Your task to perform on an android device: turn off improve location accuracy Image 0: 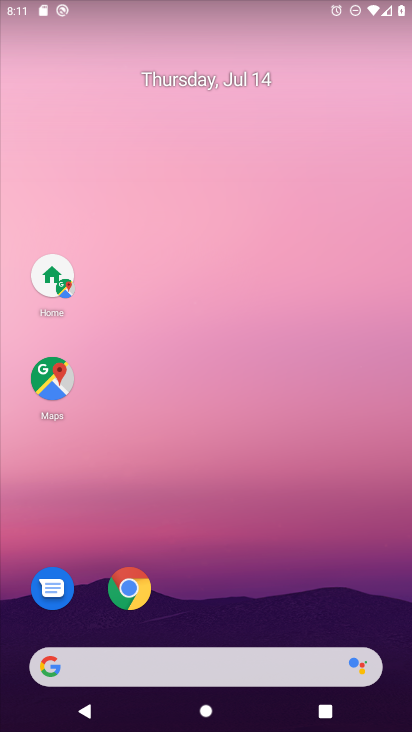
Step 0: click (35, 386)
Your task to perform on an android device: turn off improve location accuracy Image 1: 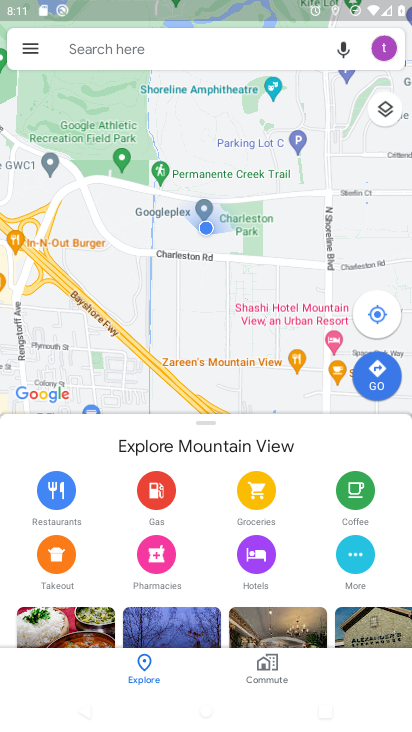
Step 1: click (36, 53)
Your task to perform on an android device: turn off improve location accuracy Image 2: 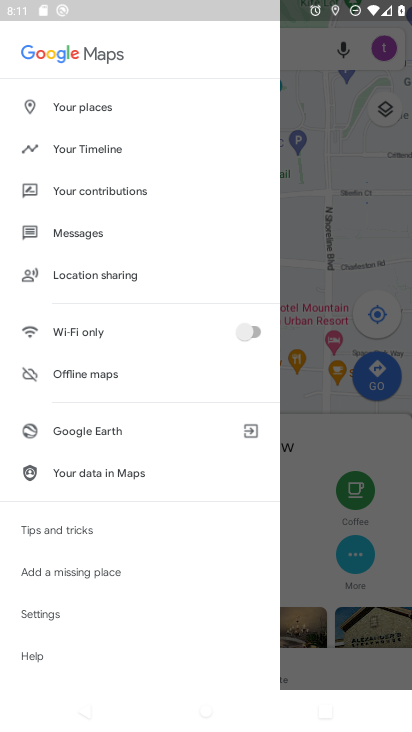
Step 2: click (60, 612)
Your task to perform on an android device: turn off improve location accuracy Image 3: 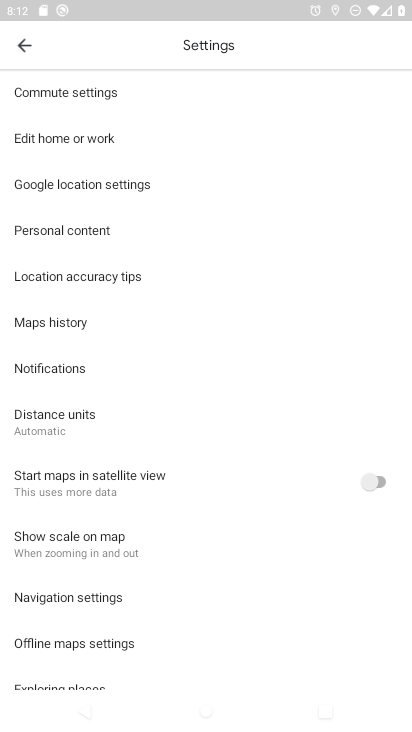
Step 3: drag from (208, 607) to (258, 171)
Your task to perform on an android device: turn off improve location accuracy Image 4: 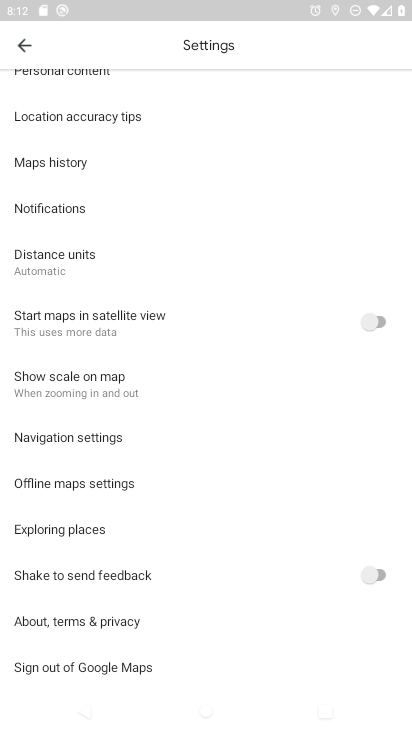
Step 4: drag from (269, 105) to (262, 597)
Your task to perform on an android device: turn off improve location accuracy Image 5: 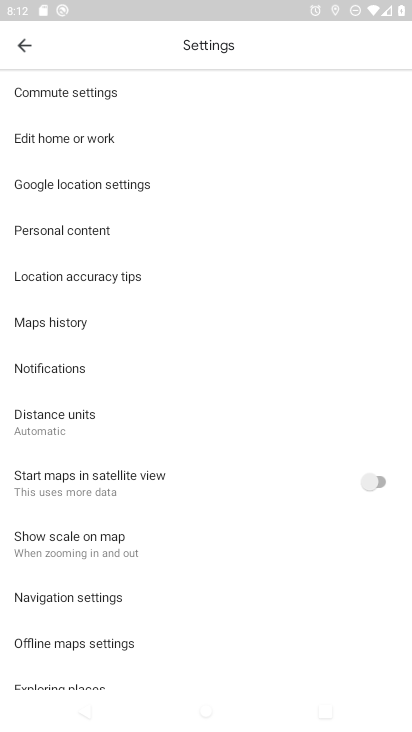
Step 5: click (63, 272)
Your task to perform on an android device: turn off improve location accuracy Image 6: 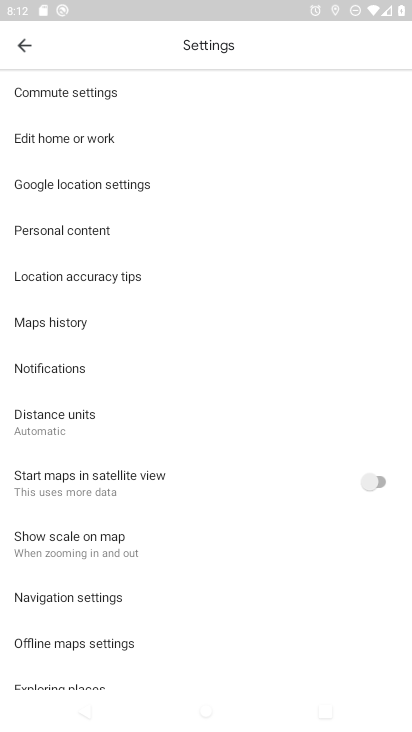
Step 6: click (75, 270)
Your task to perform on an android device: turn off improve location accuracy Image 7: 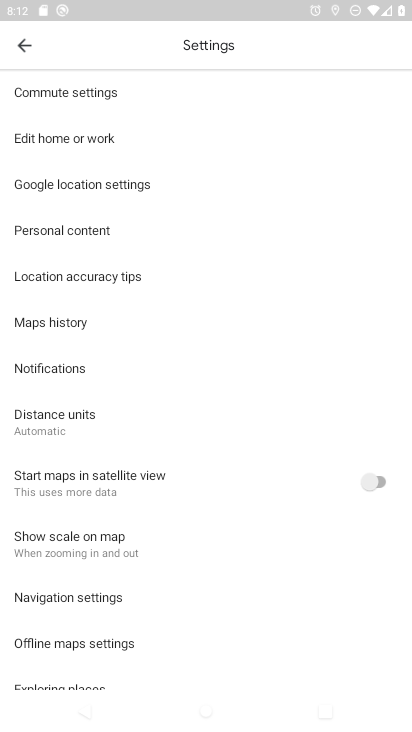
Step 7: click (74, 186)
Your task to perform on an android device: turn off improve location accuracy Image 8: 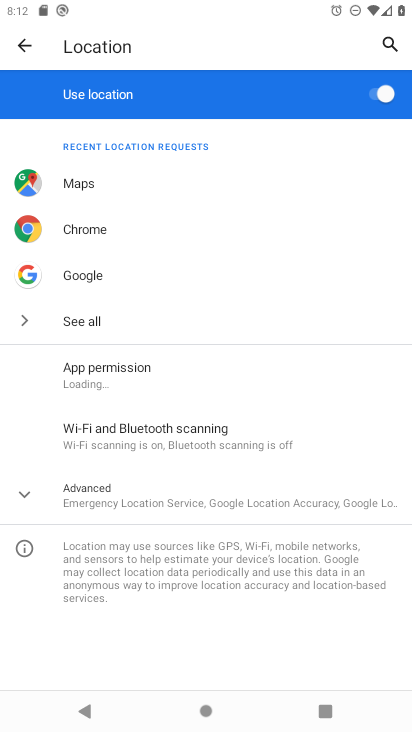
Step 8: click (137, 505)
Your task to perform on an android device: turn off improve location accuracy Image 9: 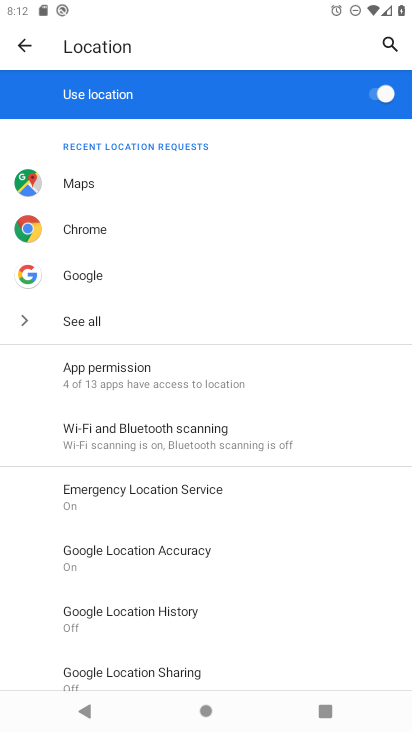
Step 9: click (140, 575)
Your task to perform on an android device: turn off improve location accuracy Image 10: 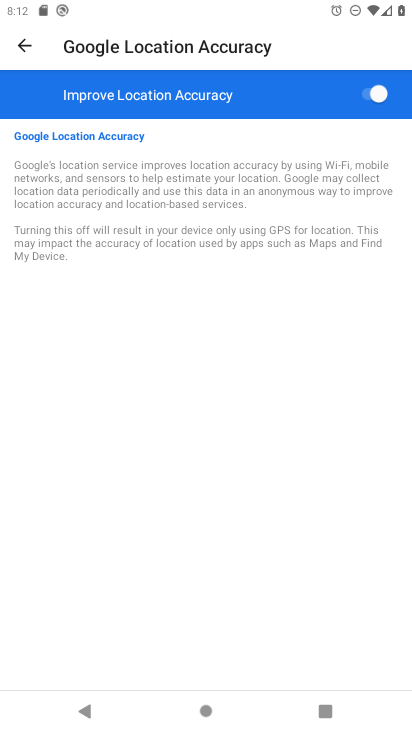
Step 10: click (377, 92)
Your task to perform on an android device: turn off improve location accuracy Image 11: 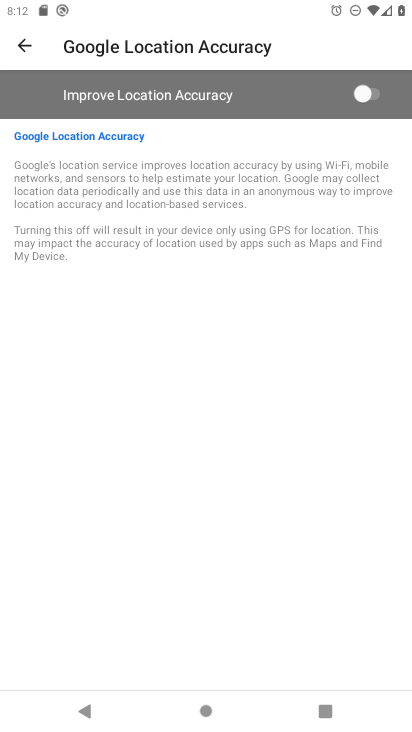
Step 11: task complete